Your task to perform on an android device: Go to eBay Image 0: 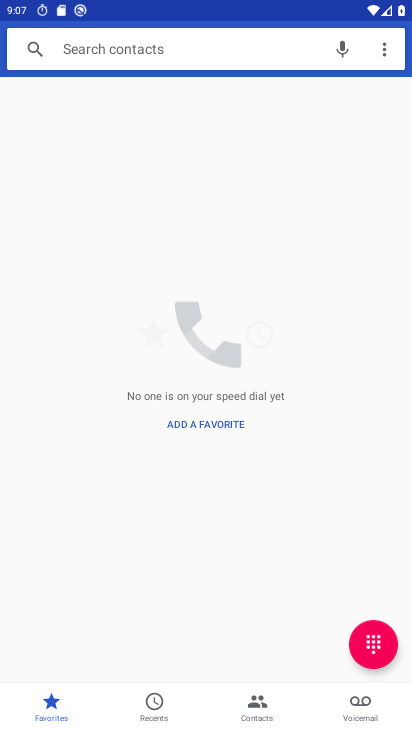
Step 0: press home button
Your task to perform on an android device: Go to eBay Image 1: 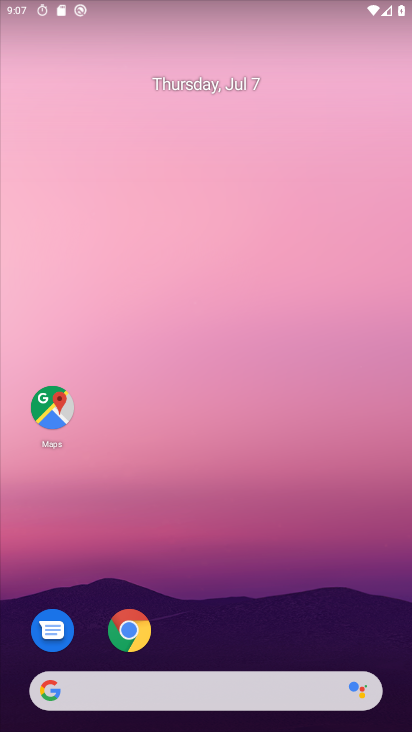
Step 1: click (113, 694)
Your task to perform on an android device: Go to eBay Image 2: 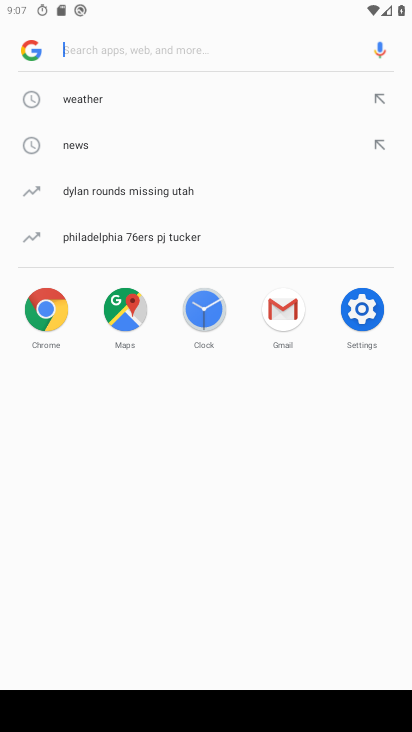
Step 2: type "eBay"
Your task to perform on an android device: Go to eBay Image 3: 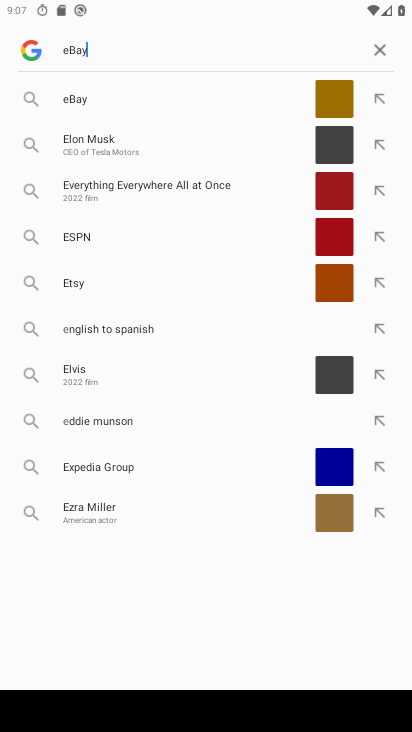
Step 3: type ""
Your task to perform on an android device: Go to eBay Image 4: 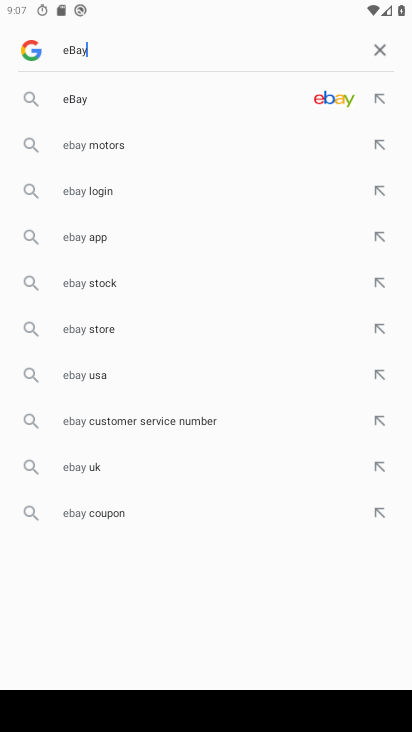
Step 4: click (90, 95)
Your task to perform on an android device: Go to eBay Image 5: 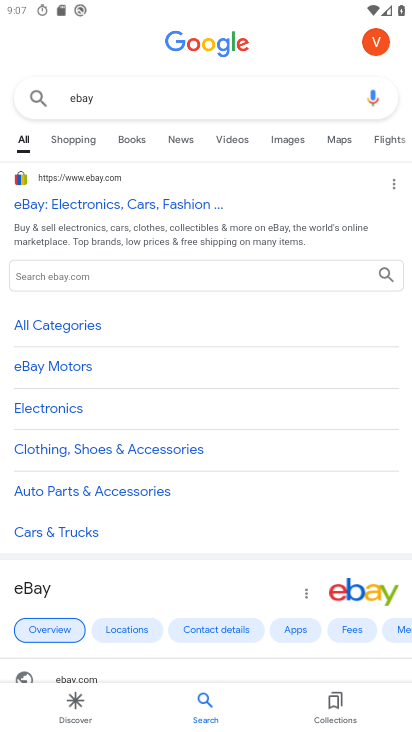
Step 5: task complete